Your task to perform on an android device: see sites visited before in the chrome app Image 0: 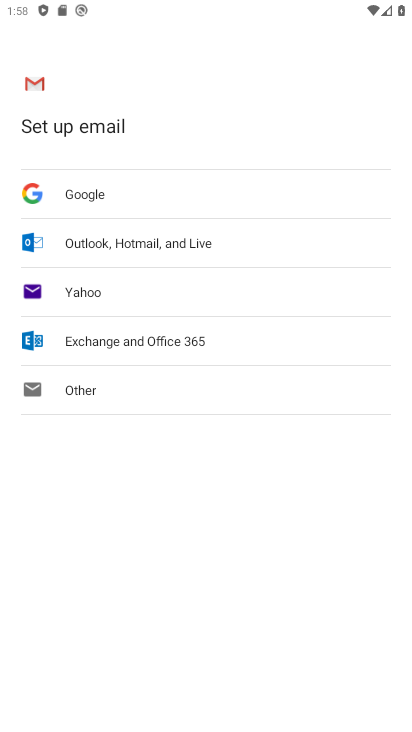
Step 0: press back button
Your task to perform on an android device: see sites visited before in the chrome app Image 1: 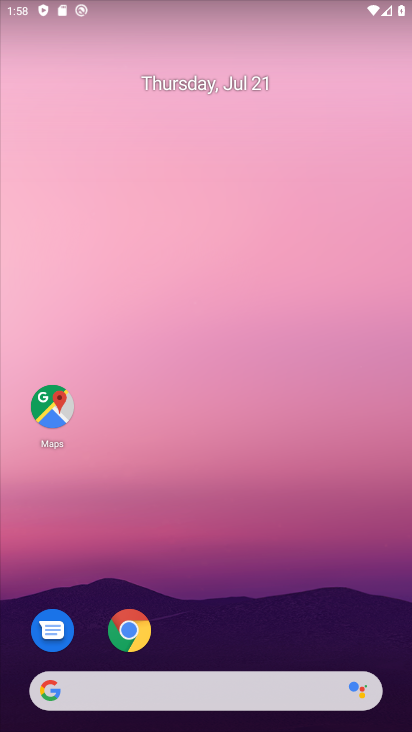
Step 1: press back button
Your task to perform on an android device: see sites visited before in the chrome app Image 2: 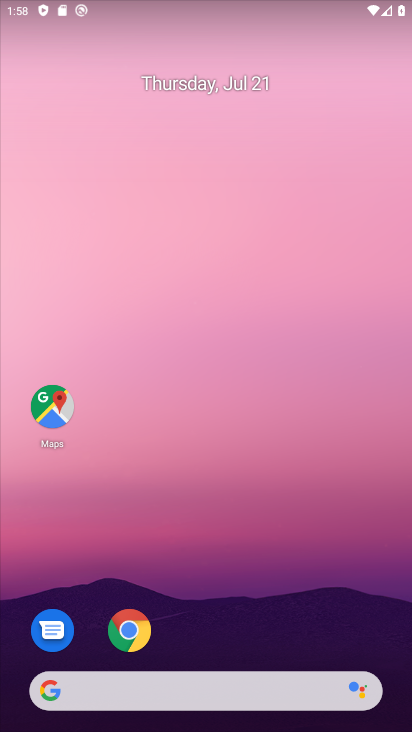
Step 2: drag from (233, 645) to (160, 100)
Your task to perform on an android device: see sites visited before in the chrome app Image 3: 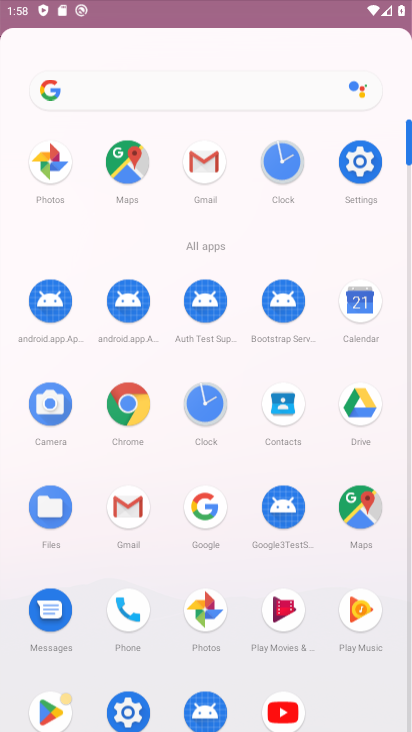
Step 3: drag from (240, 647) to (160, 227)
Your task to perform on an android device: see sites visited before in the chrome app Image 4: 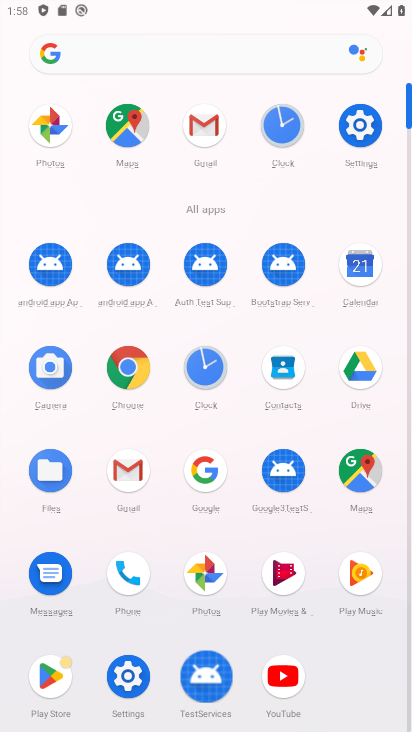
Step 4: drag from (202, 352) to (179, 202)
Your task to perform on an android device: see sites visited before in the chrome app Image 5: 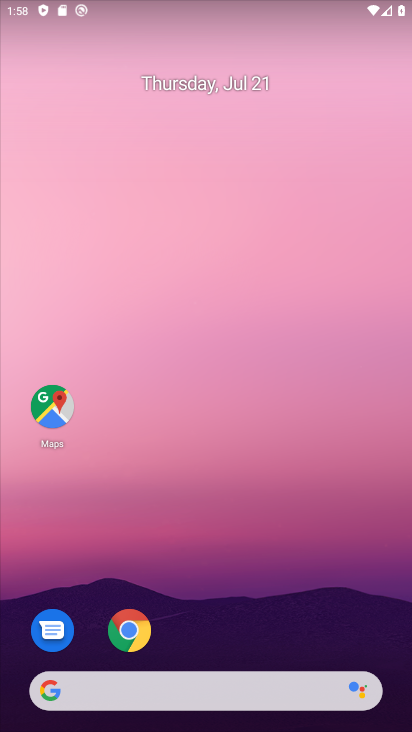
Step 5: drag from (264, 536) to (194, 164)
Your task to perform on an android device: see sites visited before in the chrome app Image 6: 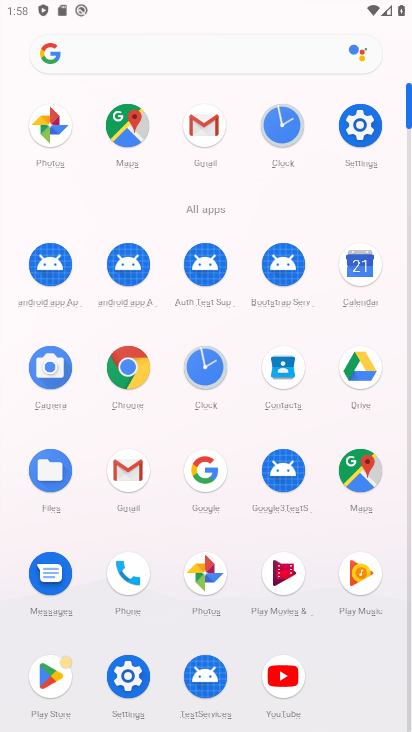
Step 6: drag from (241, 613) to (254, 192)
Your task to perform on an android device: see sites visited before in the chrome app Image 7: 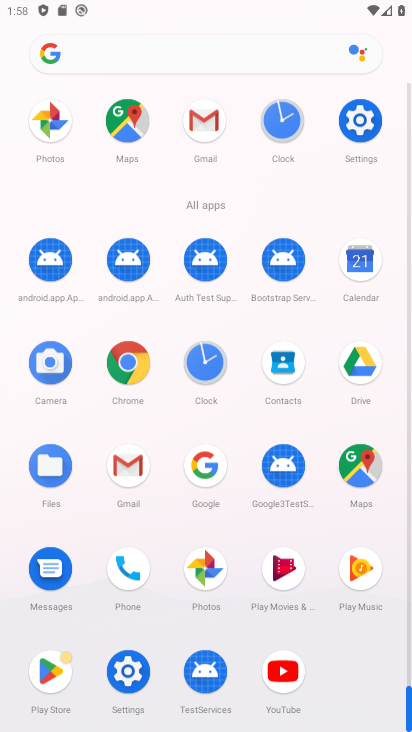
Step 7: drag from (274, 560) to (226, 207)
Your task to perform on an android device: see sites visited before in the chrome app Image 8: 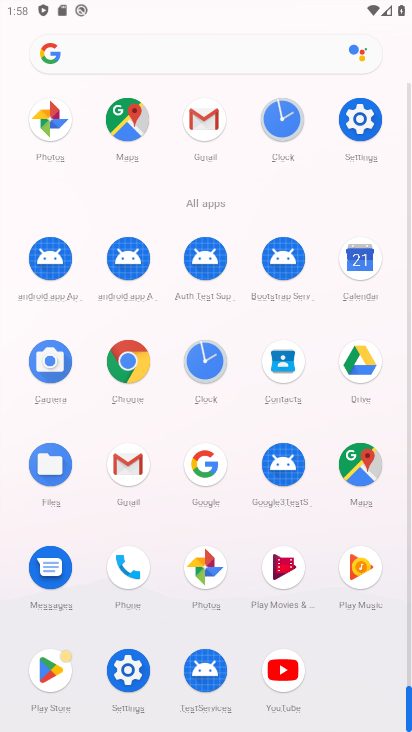
Step 8: click (134, 369)
Your task to perform on an android device: see sites visited before in the chrome app Image 9: 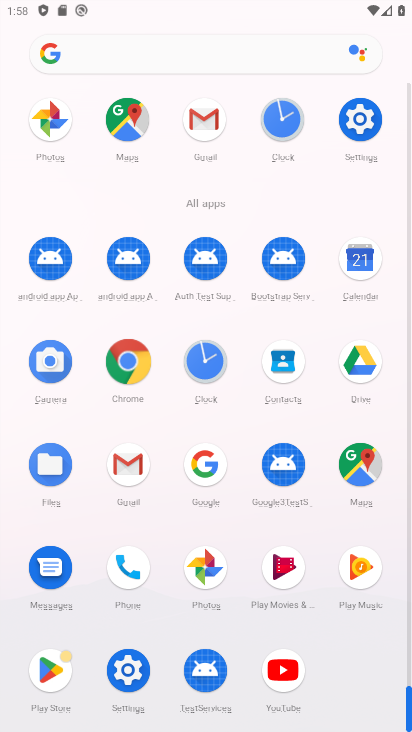
Step 9: click (138, 355)
Your task to perform on an android device: see sites visited before in the chrome app Image 10: 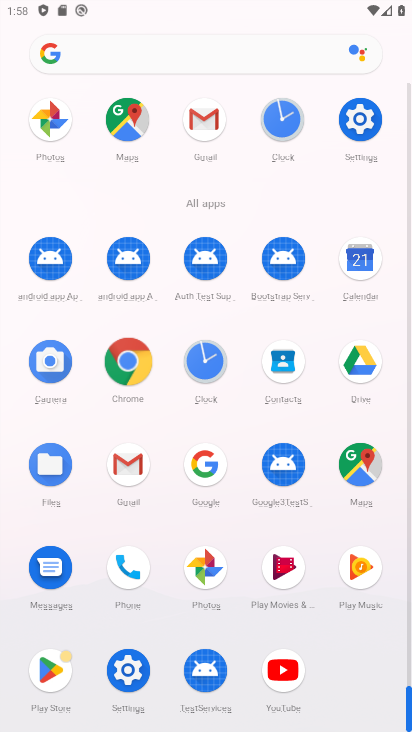
Step 10: click (134, 356)
Your task to perform on an android device: see sites visited before in the chrome app Image 11: 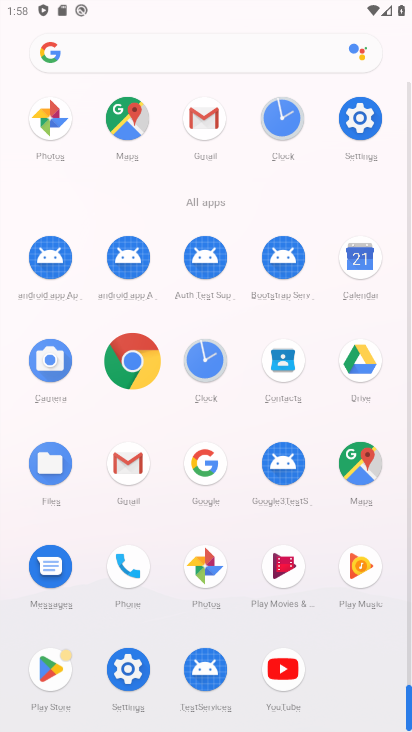
Step 11: click (147, 342)
Your task to perform on an android device: see sites visited before in the chrome app Image 12: 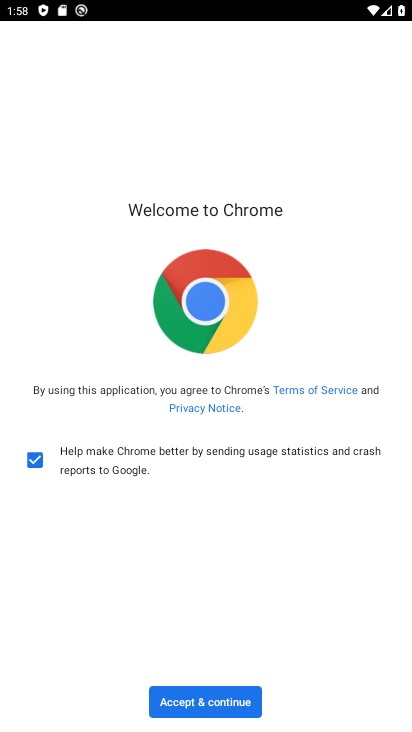
Step 12: click (136, 357)
Your task to perform on an android device: see sites visited before in the chrome app Image 13: 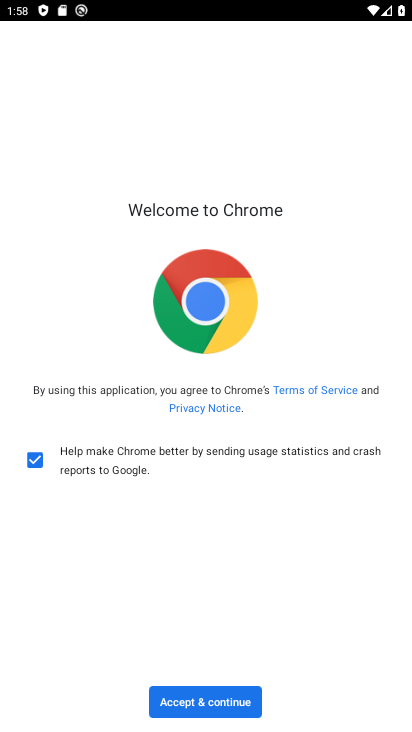
Step 13: click (209, 700)
Your task to perform on an android device: see sites visited before in the chrome app Image 14: 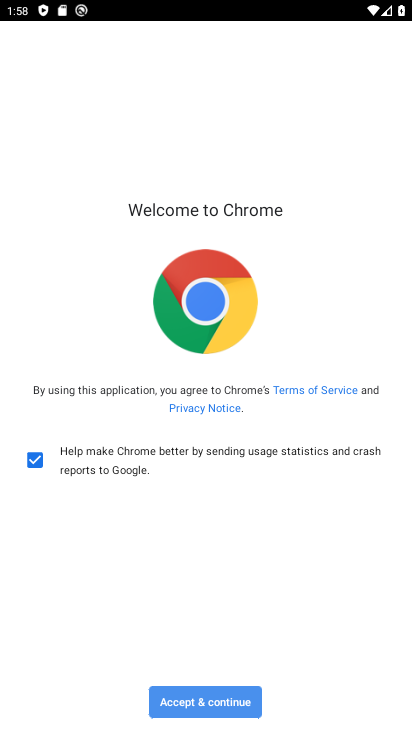
Step 14: click (211, 698)
Your task to perform on an android device: see sites visited before in the chrome app Image 15: 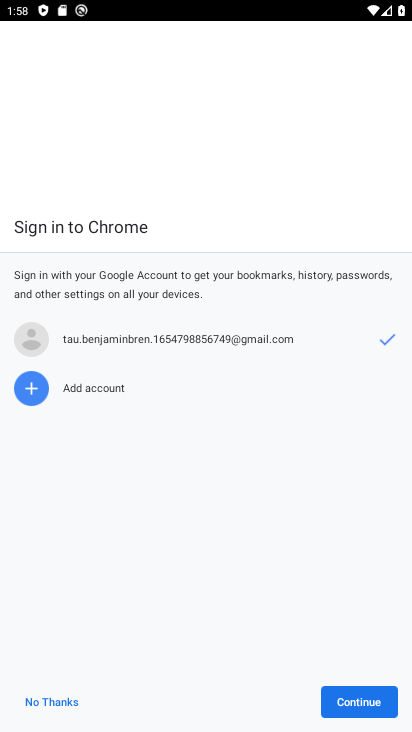
Step 15: click (211, 698)
Your task to perform on an android device: see sites visited before in the chrome app Image 16: 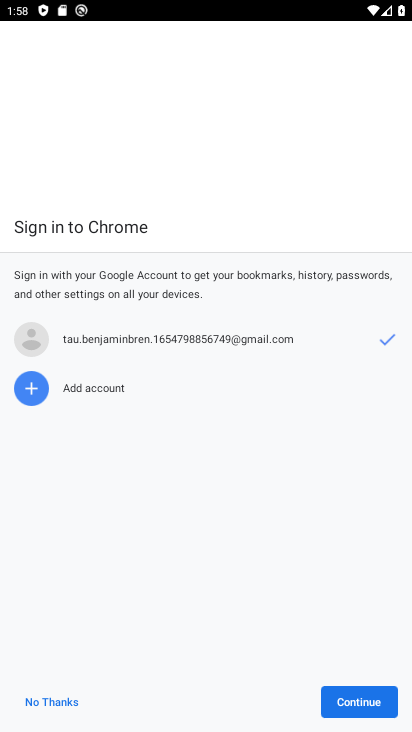
Step 16: click (217, 696)
Your task to perform on an android device: see sites visited before in the chrome app Image 17: 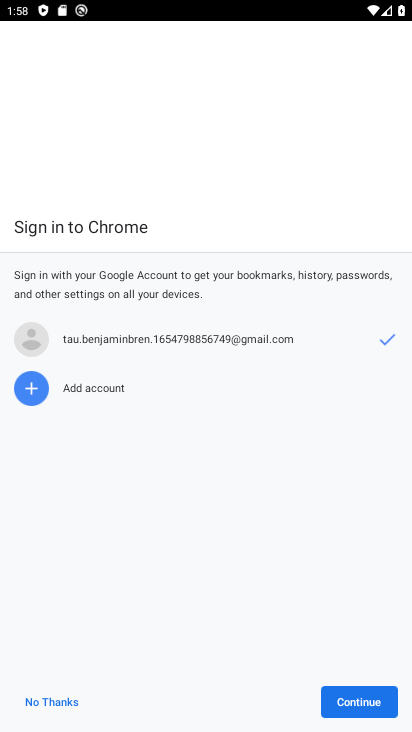
Step 17: click (49, 699)
Your task to perform on an android device: see sites visited before in the chrome app Image 18: 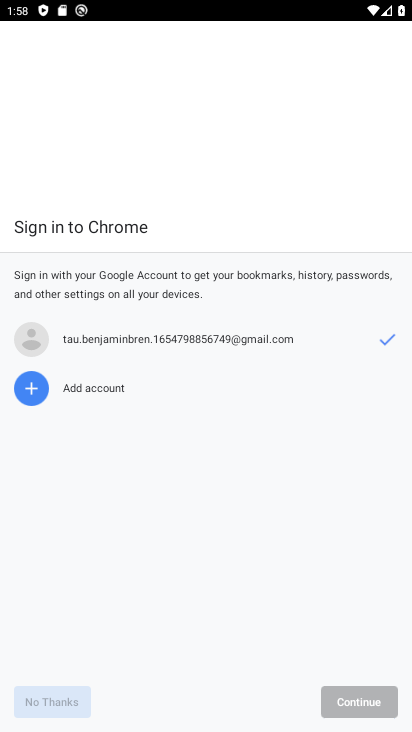
Step 18: click (52, 694)
Your task to perform on an android device: see sites visited before in the chrome app Image 19: 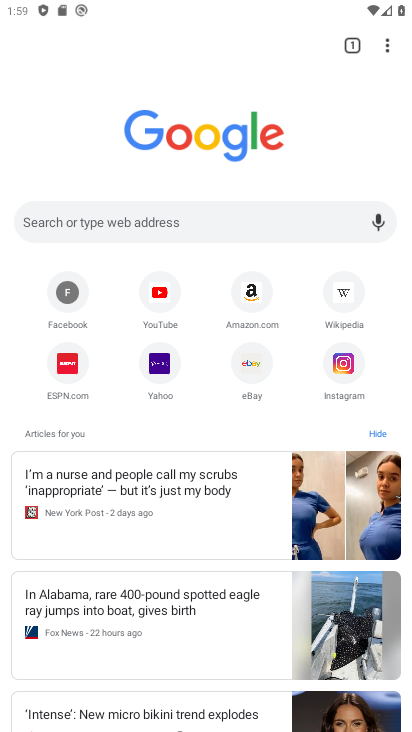
Step 19: drag from (381, 43) to (238, 97)
Your task to perform on an android device: see sites visited before in the chrome app Image 20: 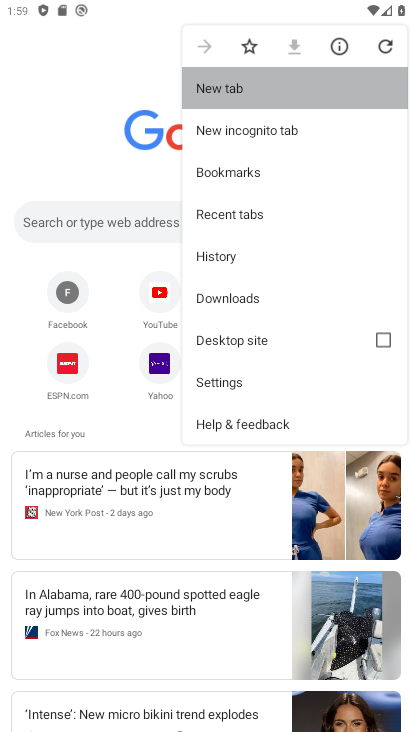
Step 20: click (219, 89)
Your task to perform on an android device: see sites visited before in the chrome app Image 21: 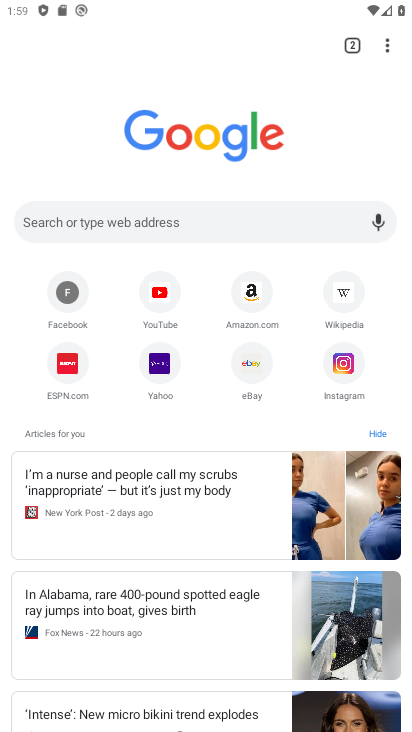
Step 21: drag from (385, 41) to (219, 209)
Your task to perform on an android device: see sites visited before in the chrome app Image 22: 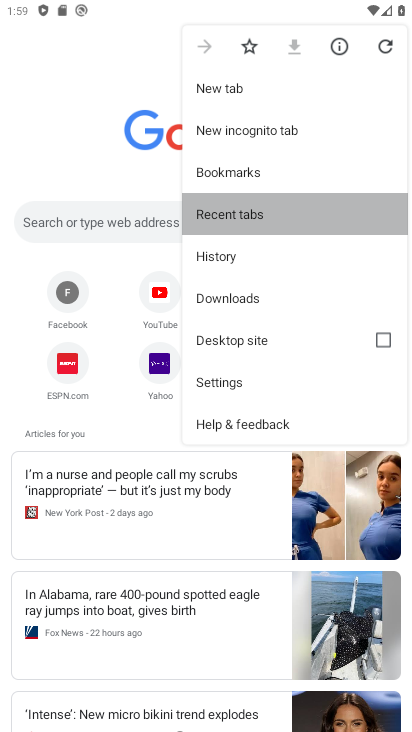
Step 22: click (219, 209)
Your task to perform on an android device: see sites visited before in the chrome app Image 23: 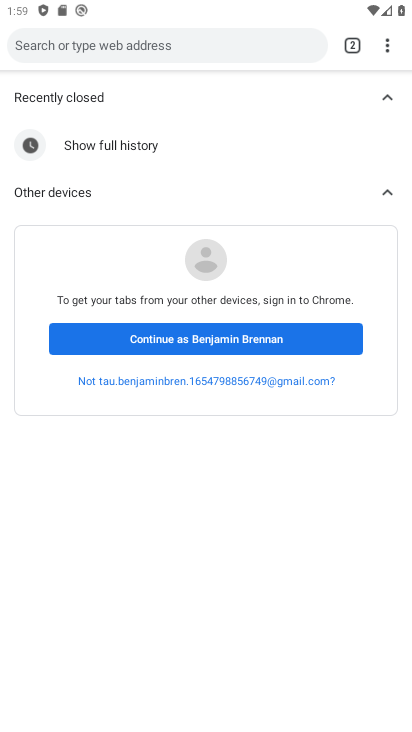
Step 23: click (375, 198)
Your task to perform on an android device: see sites visited before in the chrome app Image 24: 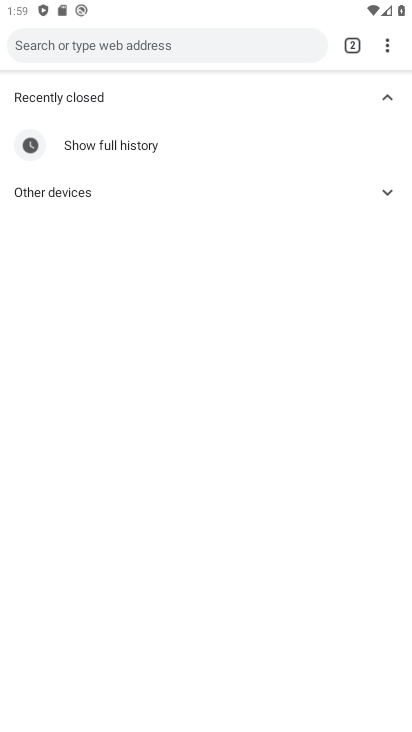
Step 24: task complete